Your task to perform on an android device: show emergency info Image 0: 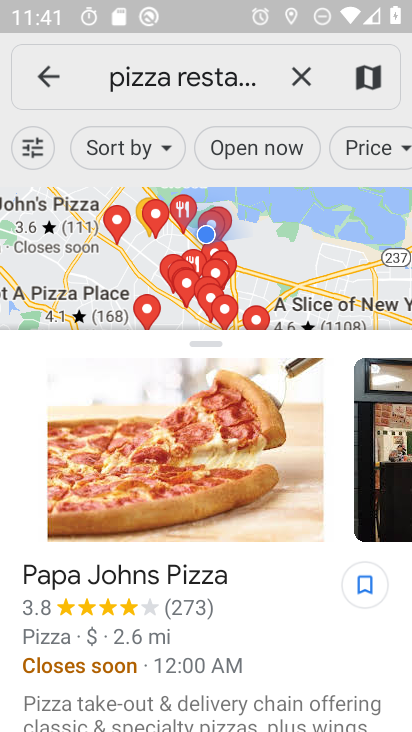
Step 0: press home button
Your task to perform on an android device: show emergency info Image 1: 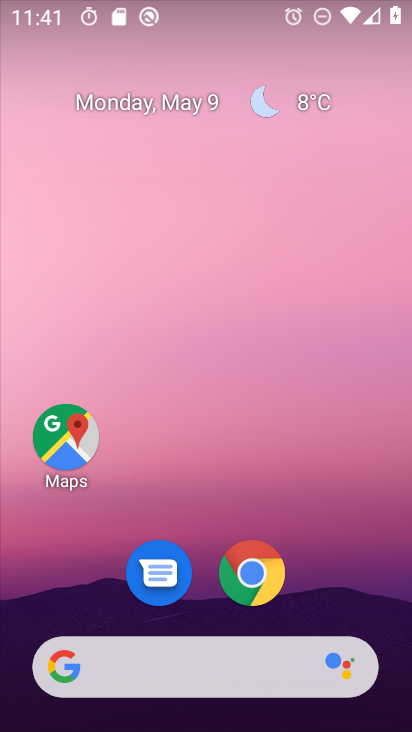
Step 1: drag from (324, 501) to (296, 12)
Your task to perform on an android device: show emergency info Image 2: 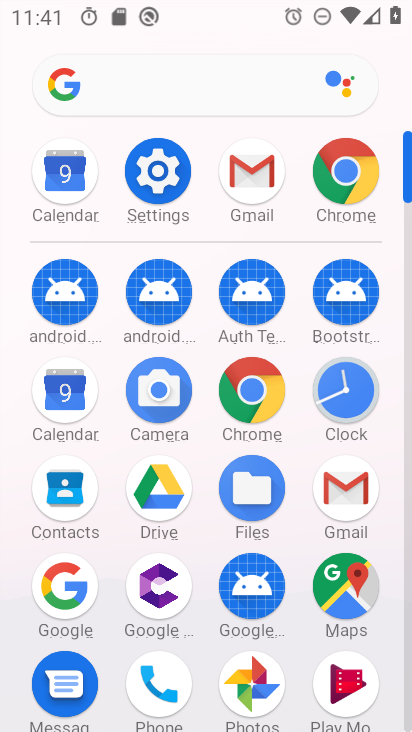
Step 2: click (166, 167)
Your task to perform on an android device: show emergency info Image 3: 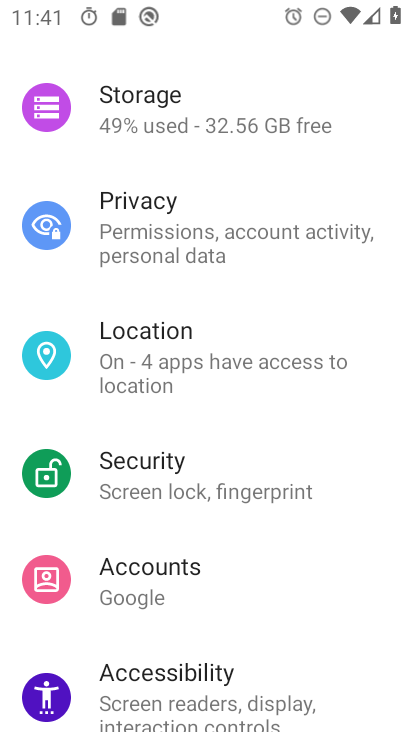
Step 3: drag from (279, 598) to (319, 117)
Your task to perform on an android device: show emergency info Image 4: 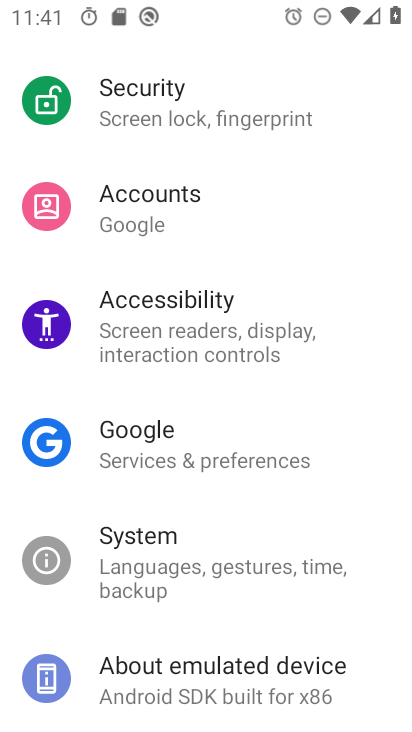
Step 4: click (217, 678)
Your task to perform on an android device: show emergency info Image 5: 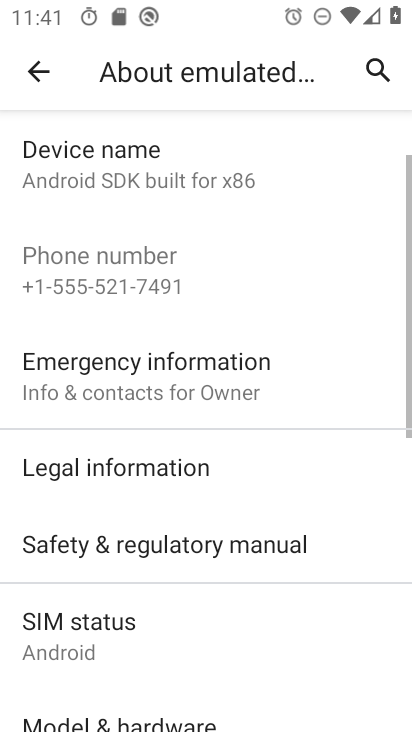
Step 5: click (216, 377)
Your task to perform on an android device: show emergency info Image 6: 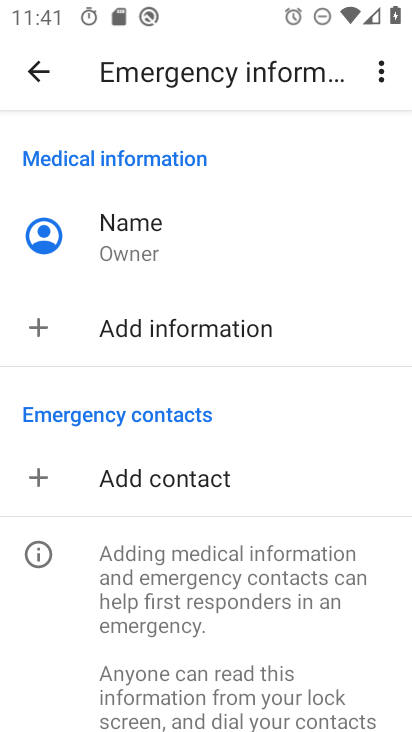
Step 6: task complete